Your task to perform on an android device: toggle pop-ups in chrome Image 0: 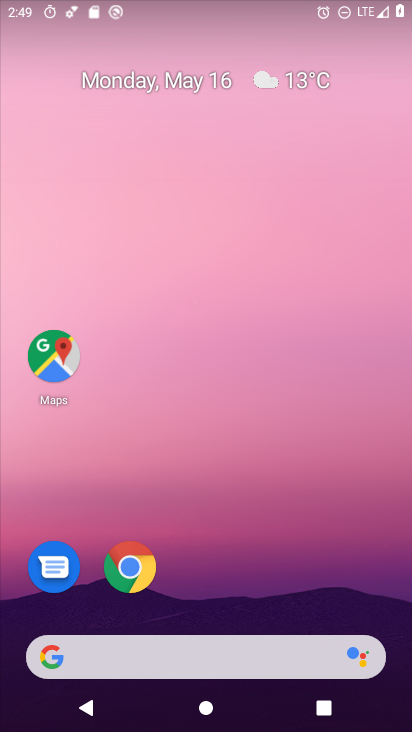
Step 0: drag from (236, 349) to (248, 180)
Your task to perform on an android device: toggle pop-ups in chrome Image 1: 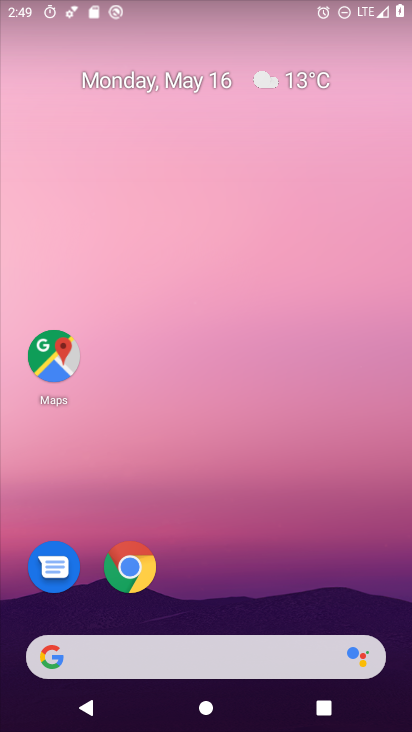
Step 1: click (121, 572)
Your task to perform on an android device: toggle pop-ups in chrome Image 2: 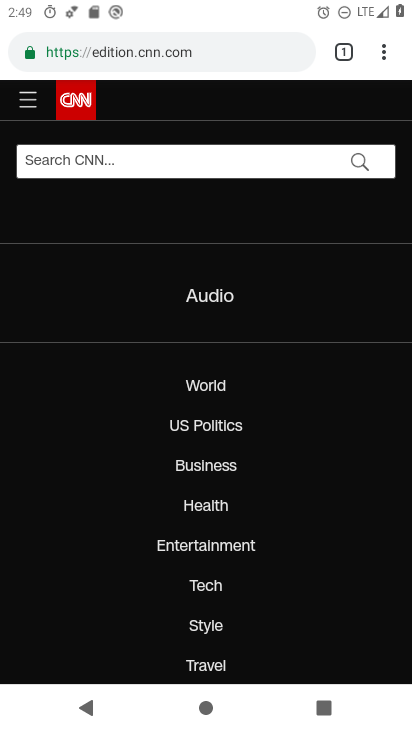
Step 2: click (393, 58)
Your task to perform on an android device: toggle pop-ups in chrome Image 3: 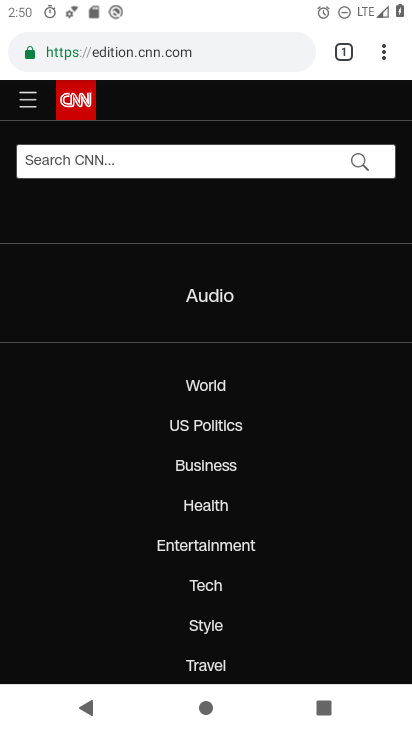
Step 3: drag from (389, 50) to (254, 643)
Your task to perform on an android device: toggle pop-ups in chrome Image 4: 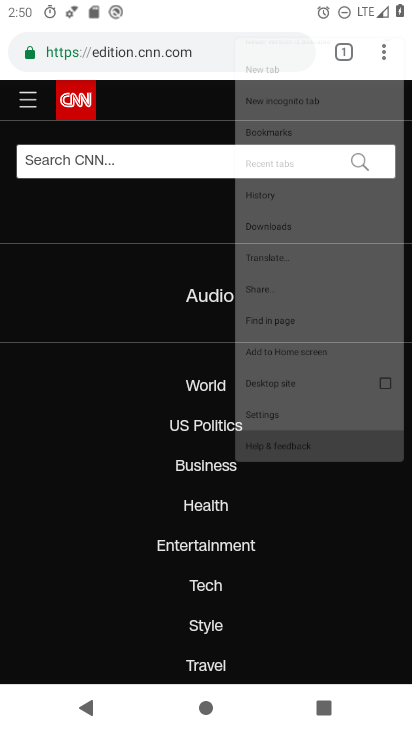
Step 4: click (252, 638)
Your task to perform on an android device: toggle pop-ups in chrome Image 5: 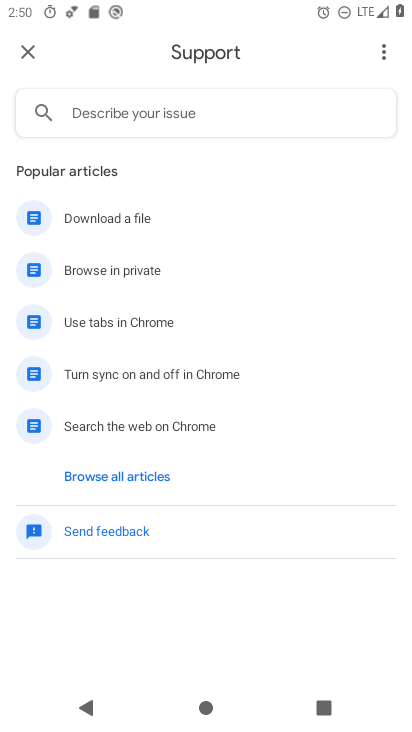
Step 5: click (32, 43)
Your task to perform on an android device: toggle pop-ups in chrome Image 6: 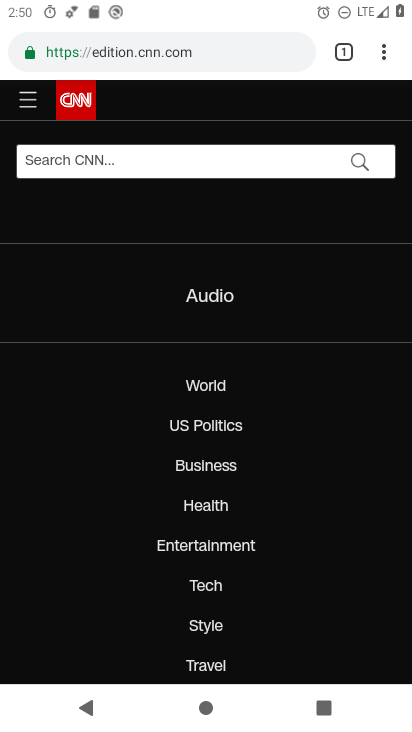
Step 6: drag from (380, 49) to (200, 597)
Your task to perform on an android device: toggle pop-ups in chrome Image 7: 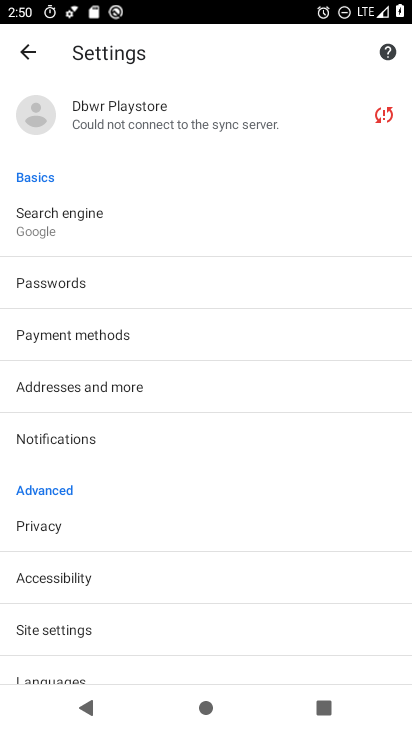
Step 7: click (63, 633)
Your task to perform on an android device: toggle pop-ups in chrome Image 8: 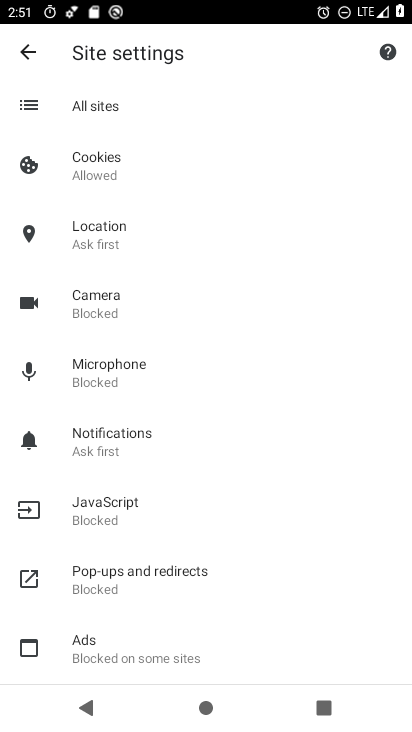
Step 8: click (106, 563)
Your task to perform on an android device: toggle pop-ups in chrome Image 9: 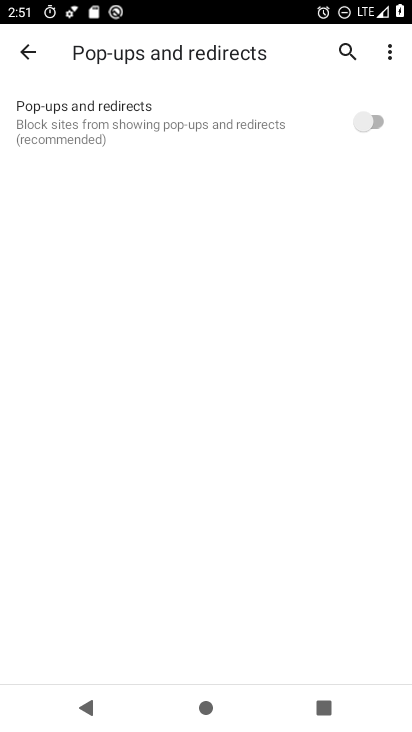
Step 9: click (365, 116)
Your task to perform on an android device: toggle pop-ups in chrome Image 10: 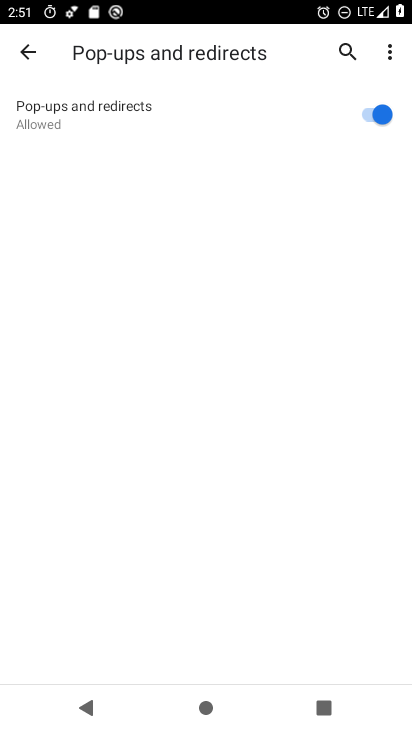
Step 10: task complete